Your task to perform on an android device: refresh tabs in the chrome app Image 0: 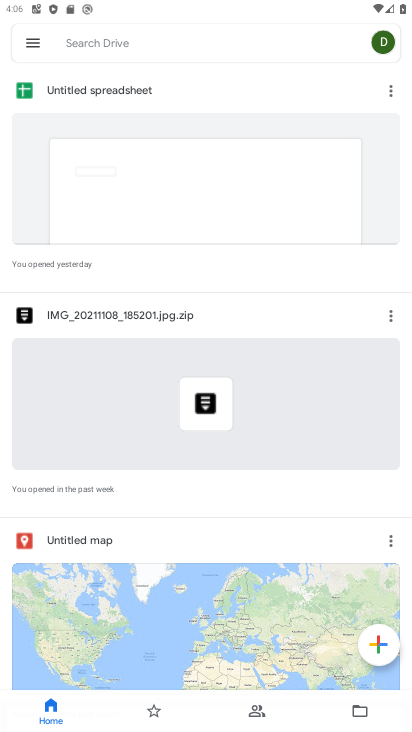
Step 0: press home button
Your task to perform on an android device: refresh tabs in the chrome app Image 1: 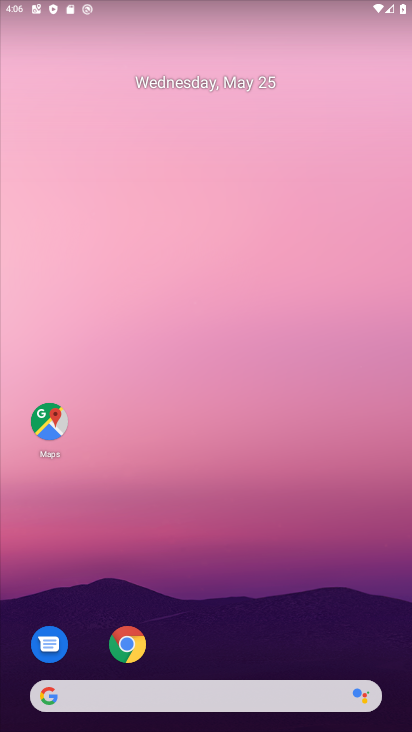
Step 1: click (134, 650)
Your task to perform on an android device: refresh tabs in the chrome app Image 2: 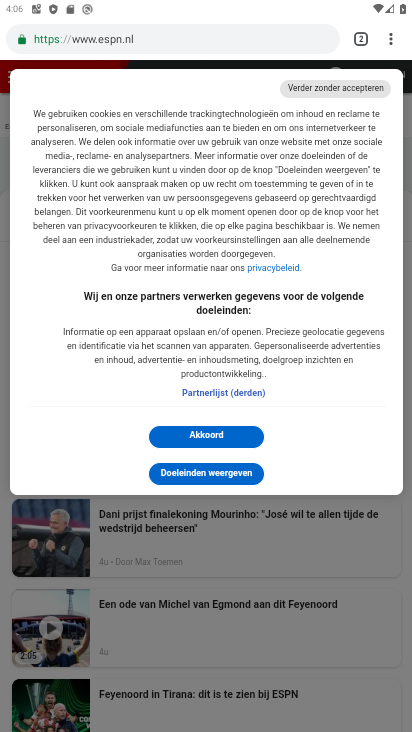
Step 2: click (391, 38)
Your task to perform on an android device: refresh tabs in the chrome app Image 3: 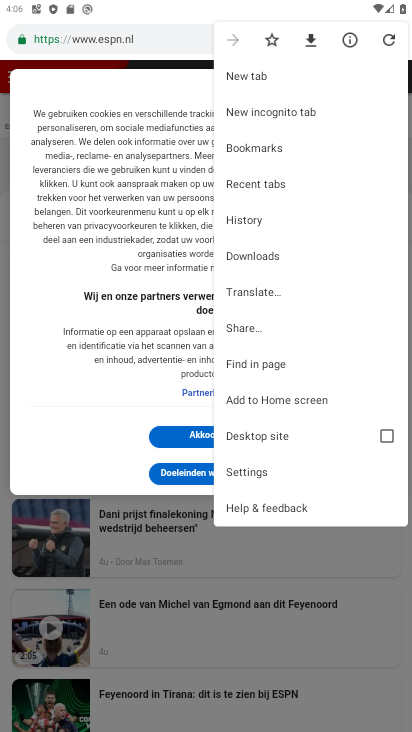
Step 3: click (391, 38)
Your task to perform on an android device: refresh tabs in the chrome app Image 4: 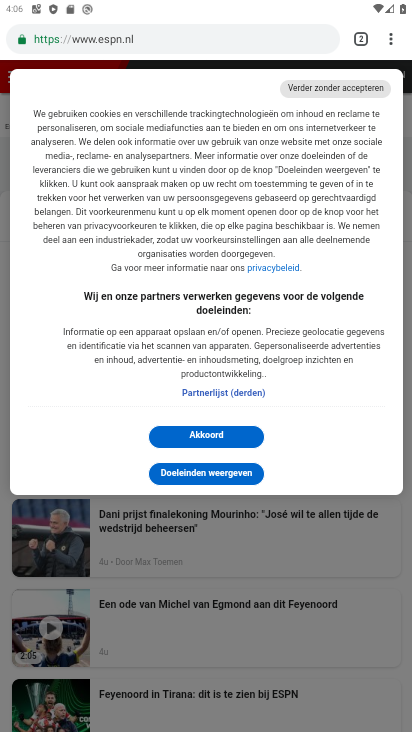
Step 4: task complete